Your task to perform on an android device: turn pop-ups off in chrome Image 0: 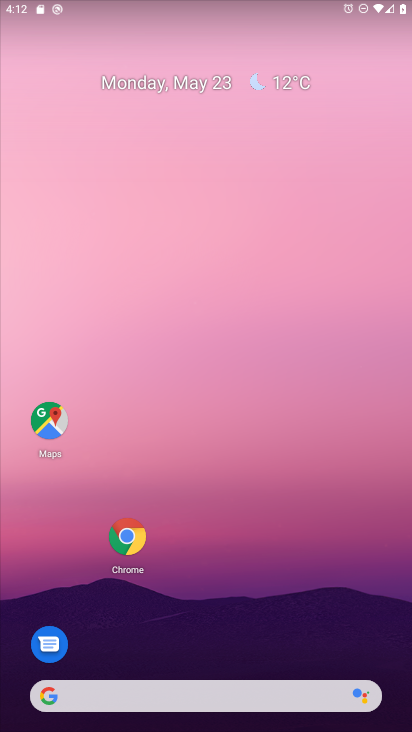
Step 0: click (115, 538)
Your task to perform on an android device: turn pop-ups off in chrome Image 1: 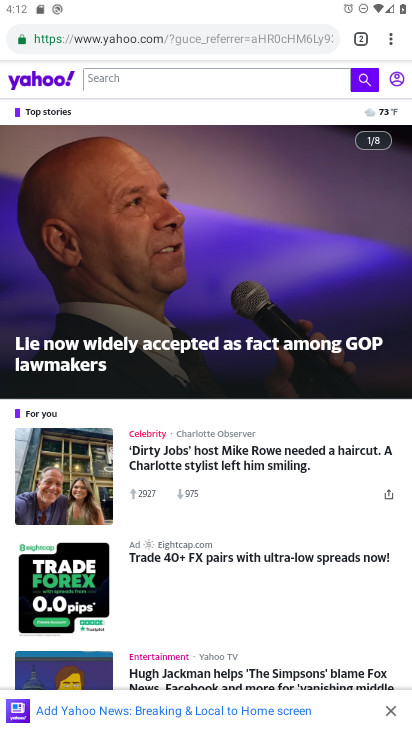
Step 1: click (387, 34)
Your task to perform on an android device: turn pop-ups off in chrome Image 2: 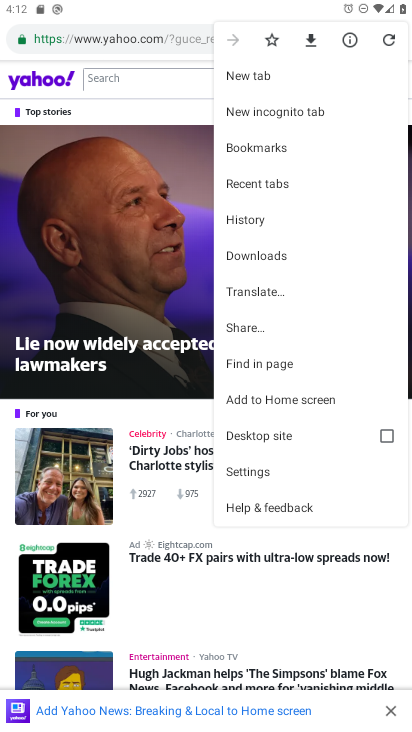
Step 2: click (240, 484)
Your task to perform on an android device: turn pop-ups off in chrome Image 3: 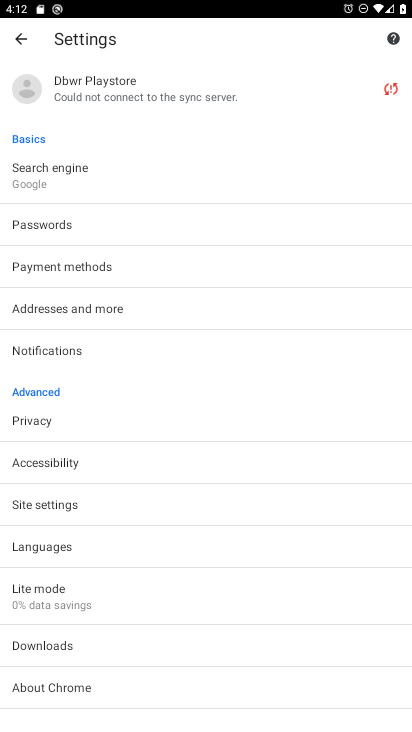
Step 3: click (121, 502)
Your task to perform on an android device: turn pop-ups off in chrome Image 4: 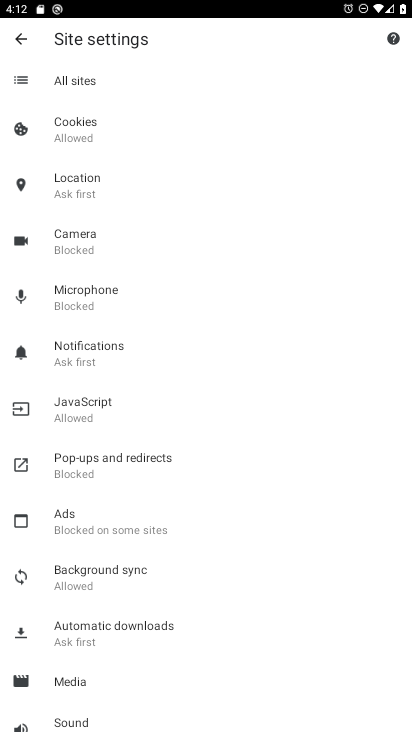
Step 4: click (133, 464)
Your task to perform on an android device: turn pop-ups off in chrome Image 5: 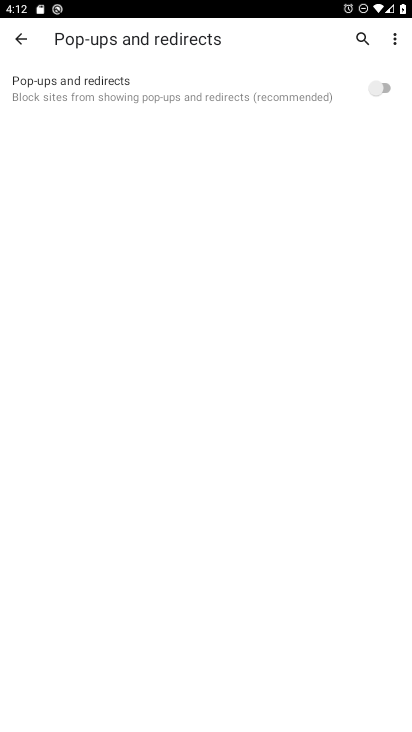
Step 5: task complete